Your task to perform on an android device: turn on priority inbox in the gmail app Image 0: 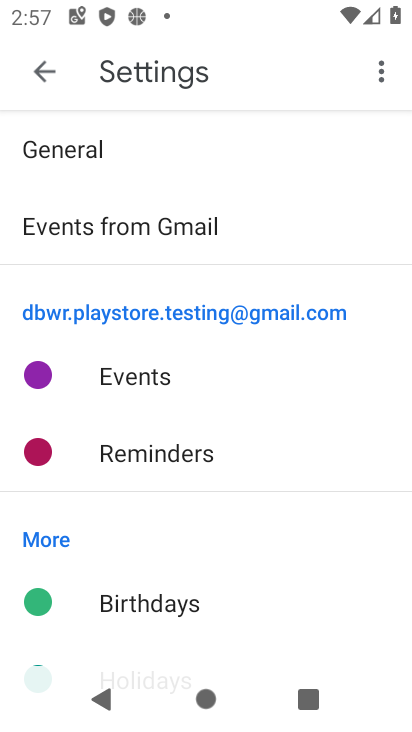
Step 0: press back button
Your task to perform on an android device: turn on priority inbox in the gmail app Image 1: 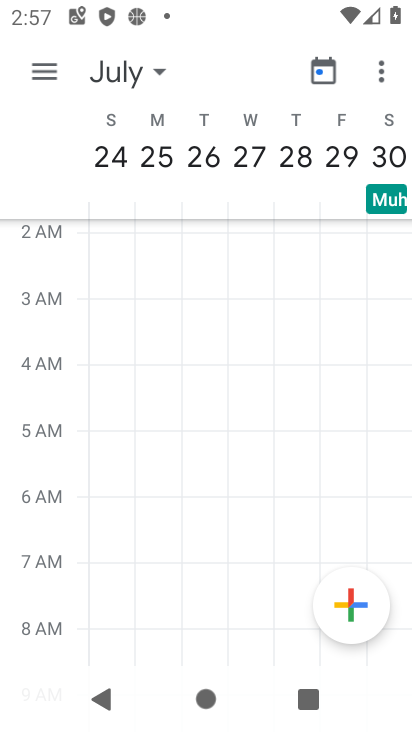
Step 1: press back button
Your task to perform on an android device: turn on priority inbox in the gmail app Image 2: 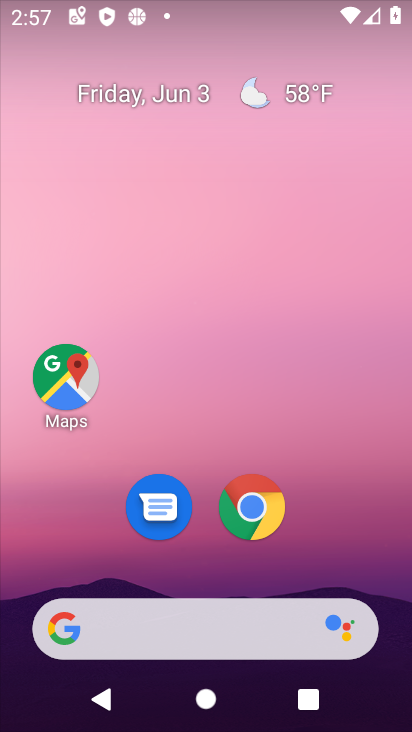
Step 2: drag from (354, 462) to (226, 6)
Your task to perform on an android device: turn on priority inbox in the gmail app Image 3: 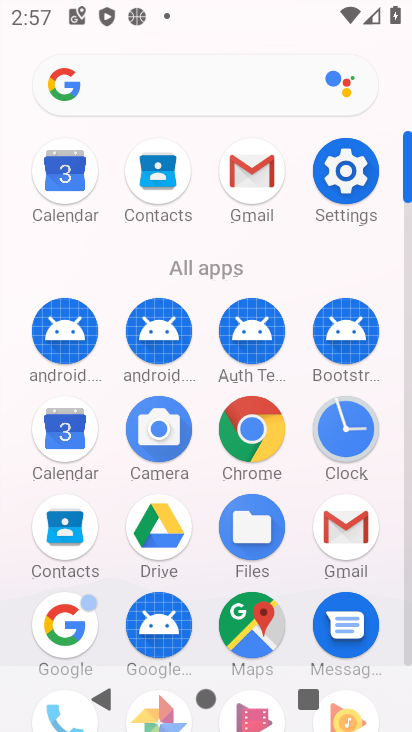
Step 3: click (250, 166)
Your task to perform on an android device: turn on priority inbox in the gmail app Image 4: 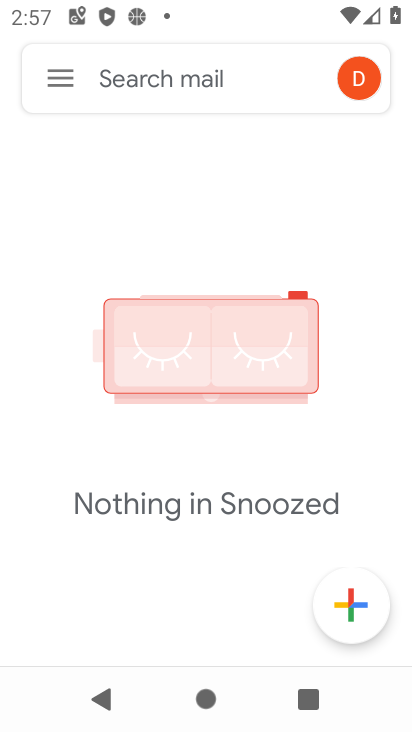
Step 4: click (59, 80)
Your task to perform on an android device: turn on priority inbox in the gmail app Image 5: 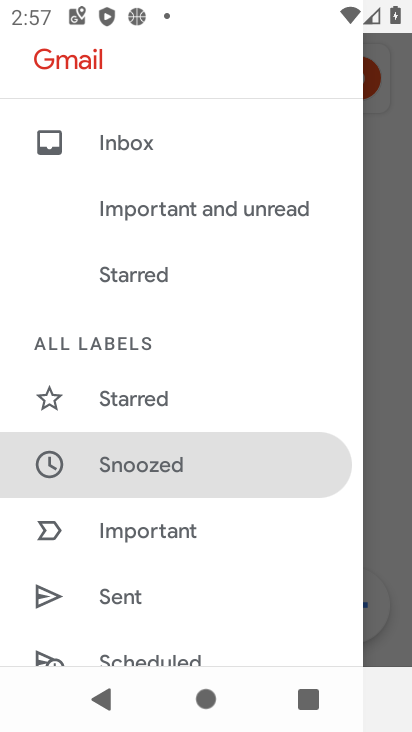
Step 5: drag from (164, 303) to (158, 133)
Your task to perform on an android device: turn on priority inbox in the gmail app Image 6: 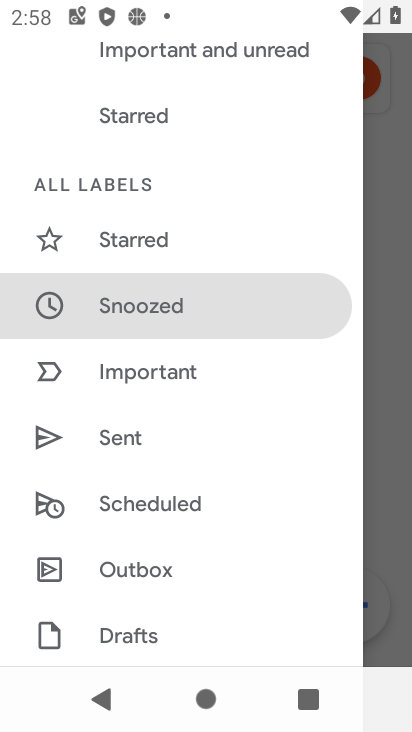
Step 6: drag from (168, 203) to (168, 24)
Your task to perform on an android device: turn on priority inbox in the gmail app Image 7: 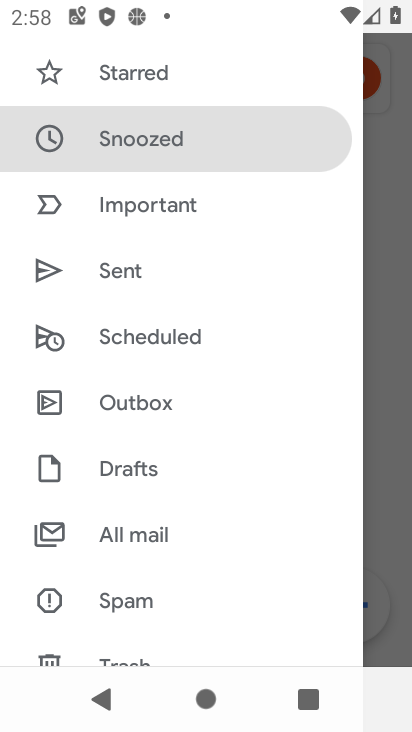
Step 7: drag from (167, 233) to (181, 22)
Your task to perform on an android device: turn on priority inbox in the gmail app Image 8: 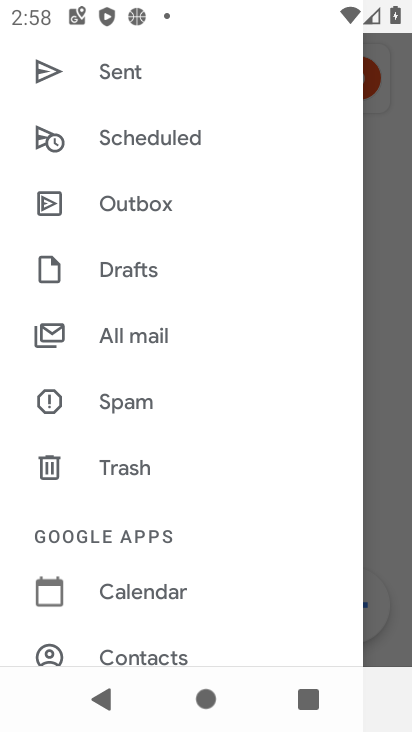
Step 8: drag from (154, 105) to (180, 1)
Your task to perform on an android device: turn on priority inbox in the gmail app Image 9: 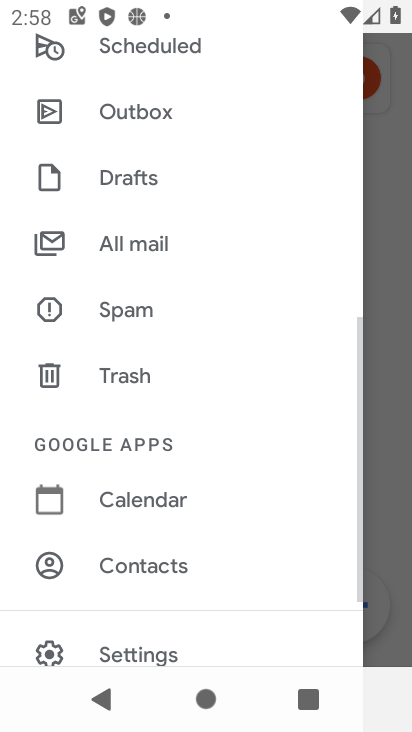
Step 9: drag from (178, 146) to (189, 0)
Your task to perform on an android device: turn on priority inbox in the gmail app Image 10: 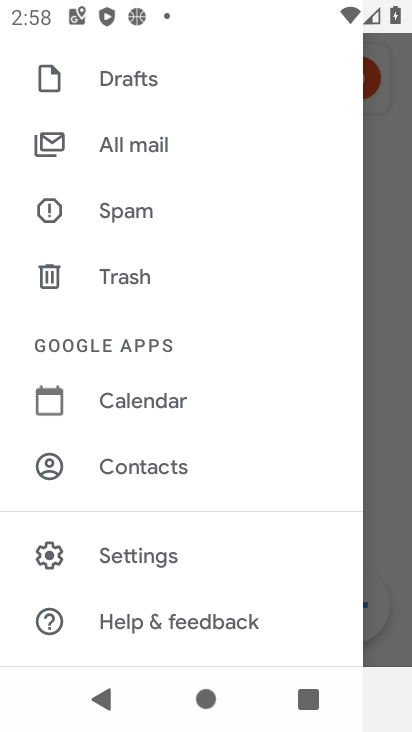
Step 10: click (166, 555)
Your task to perform on an android device: turn on priority inbox in the gmail app Image 11: 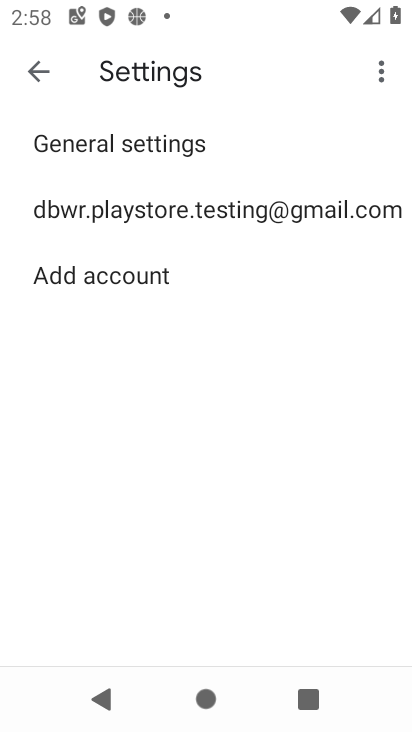
Step 11: click (191, 204)
Your task to perform on an android device: turn on priority inbox in the gmail app Image 12: 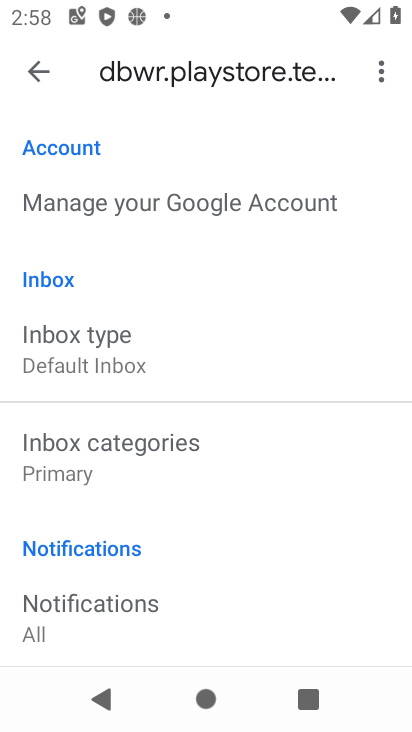
Step 12: click (119, 347)
Your task to perform on an android device: turn on priority inbox in the gmail app Image 13: 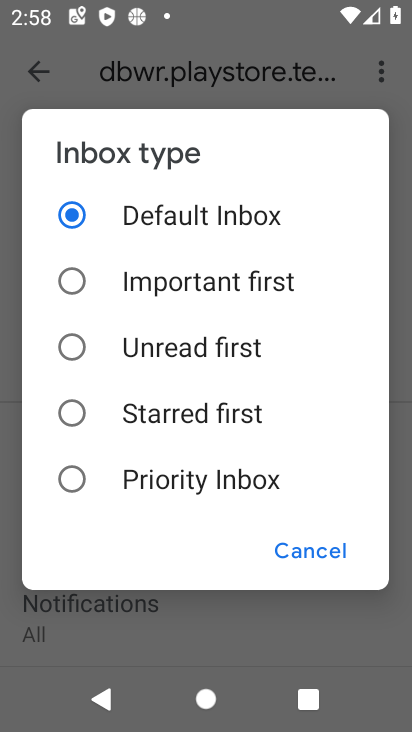
Step 13: click (74, 480)
Your task to perform on an android device: turn on priority inbox in the gmail app Image 14: 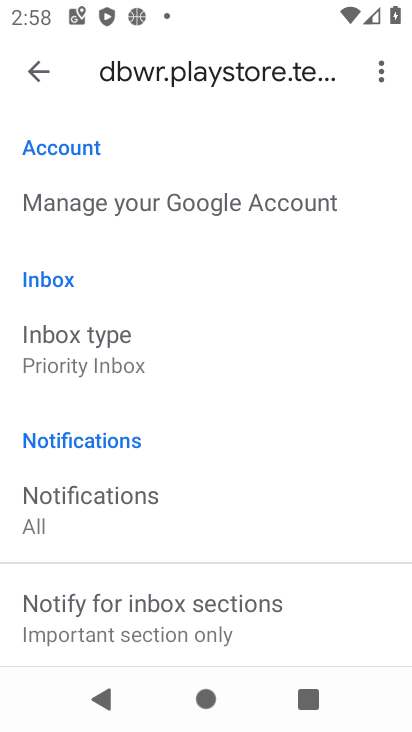
Step 14: task complete